Your task to perform on an android device: View the shopping cart on bestbuy.com. Image 0: 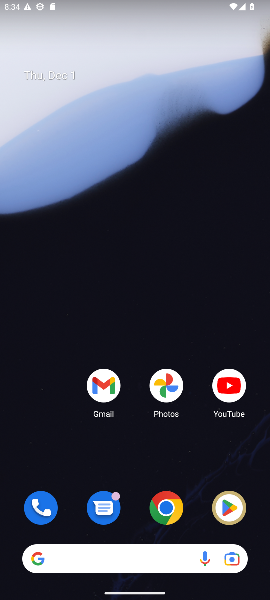
Step 0: click (169, 505)
Your task to perform on an android device: View the shopping cart on bestbuy.com. Image 1: 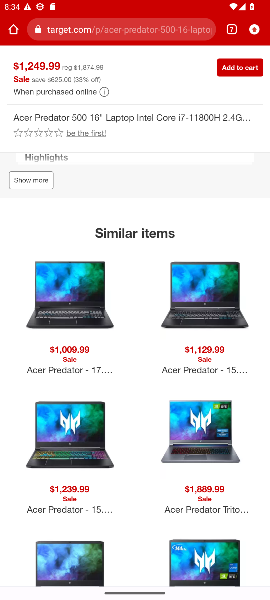
Step 1: click (232, 35)
Your task to perform on an android device: View the shopping cart on bestbuy.com. Image 2: 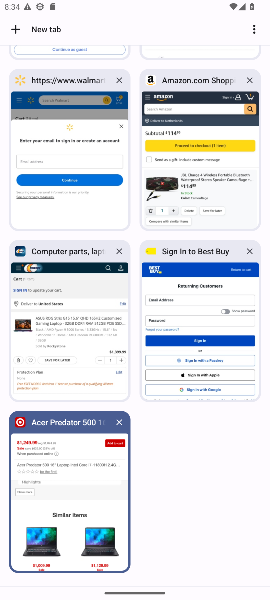
Step 2: click (190, 301)
Your task to perform on an android device: View the shopping cart on bestbuy.com. Image 3: 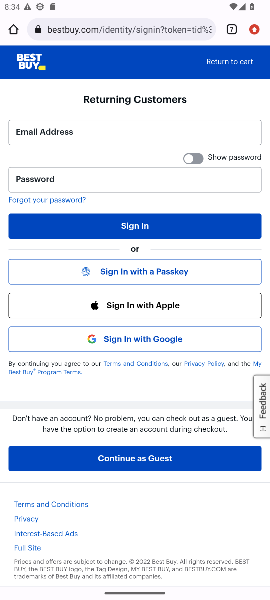
Step 3: click (230, 60)
Your task to perform on an android device: View the shopping cart on bestbuy.com. Image 4: 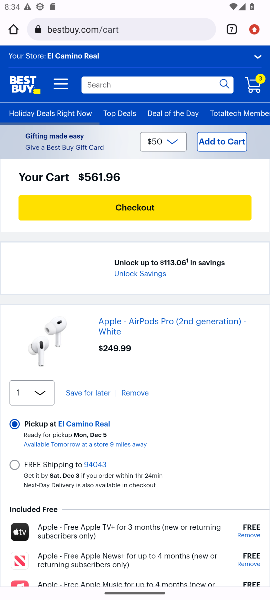
Step 4: task complete